Your task to perform on an android device: What's the weather going to be tomorrow? Image 0: 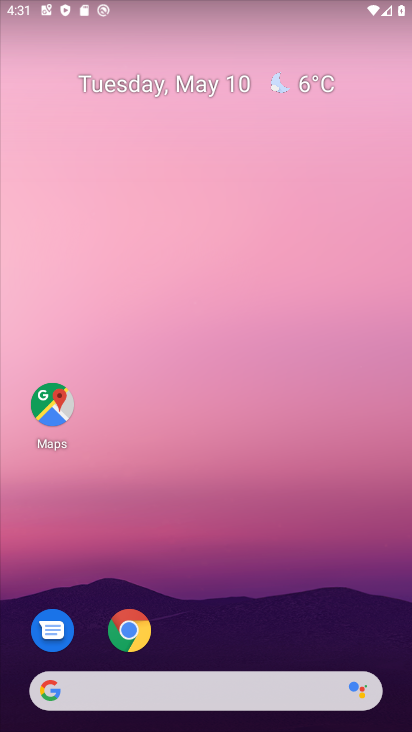
Step 0: drag from (275, 560) to (264, 160)
Your task to perform on an android device: What's the weather going to be tomorrow? Image 1: 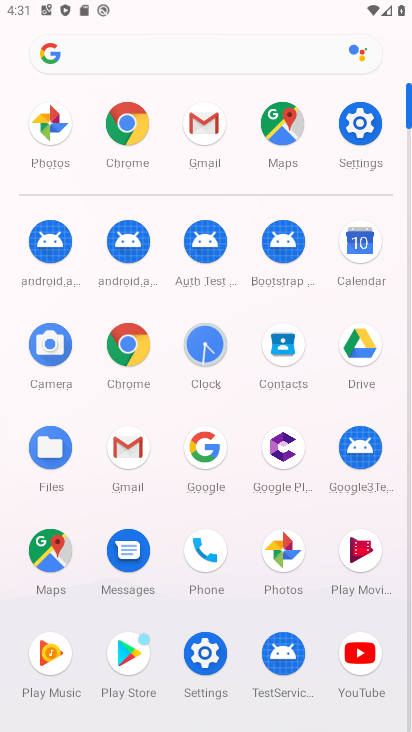
Step 1: press home button
Your task to perform on an android device: What's the weather going to be tomorrow? Image 2: 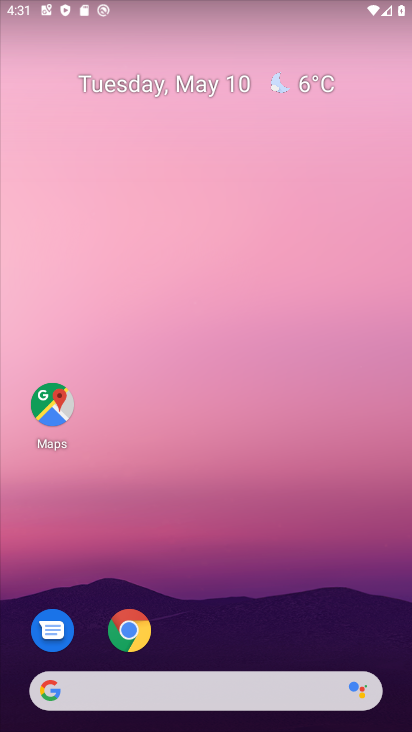
Step 2: click (304, 82)
Your task to perform on an android device: What's the weather going to be tomorrow? Image 3: 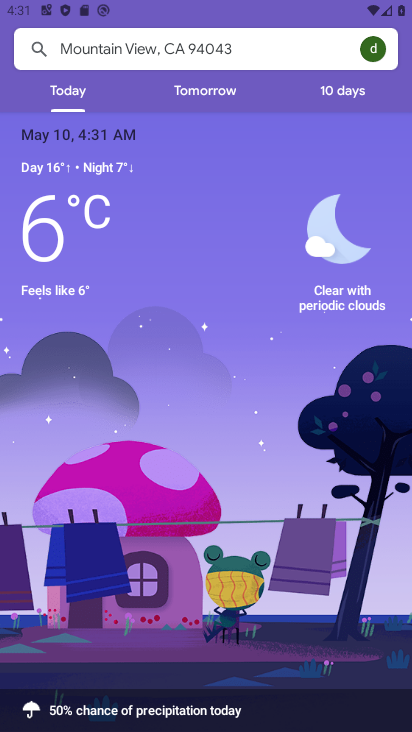
Step 3: click (222, 93)
Your task to perform on an android device: What's the weather going to be tomorrow? Image 4: 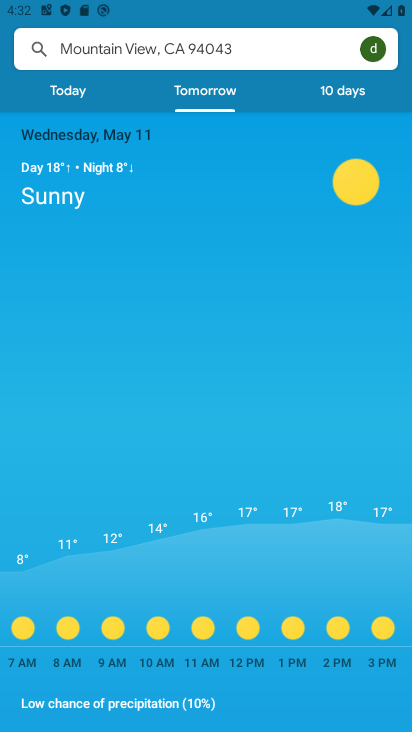
Step 4: task complete